Your task to perform on an android device: What's the weather? Image 0: 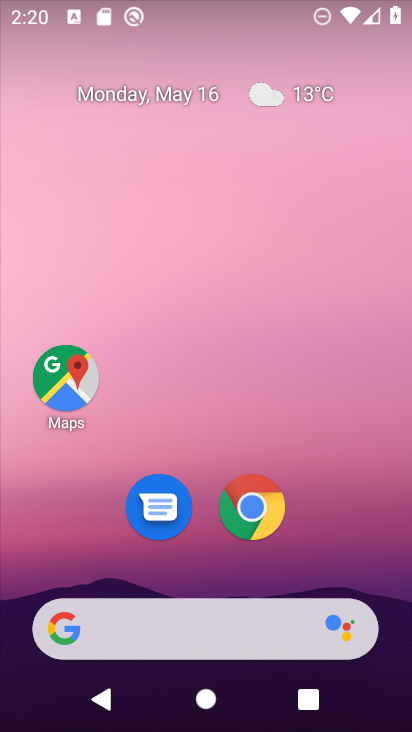
Step 0: drag from (208, 566) to (238, 249)
Your task to perform on an android device: What's the weather? Image 1: 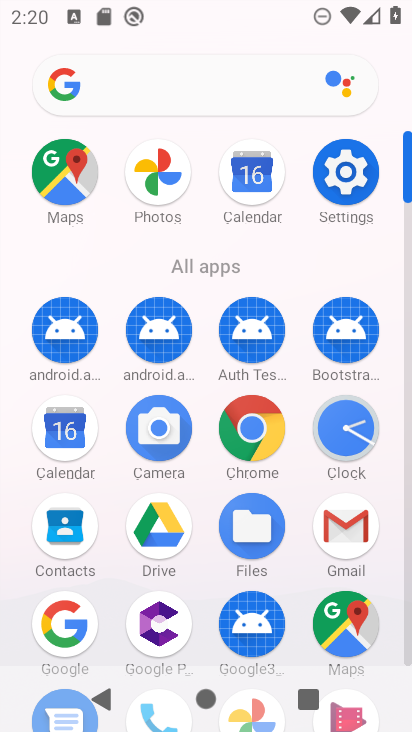
Step 1: click (49, 656)
Your task to perform on an android device: What's the weather? Image 2: 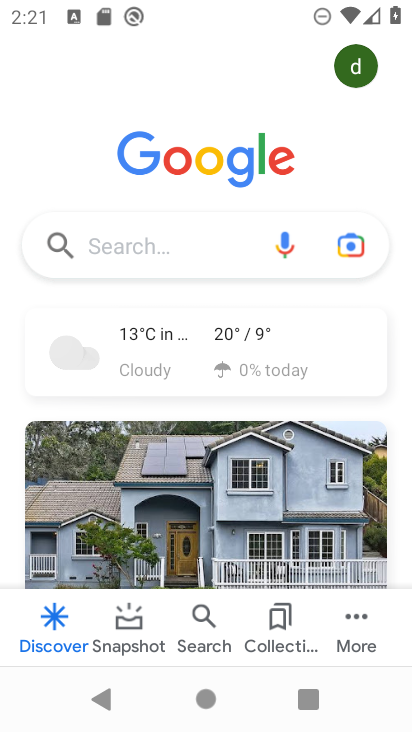
Step 2: click (200, 354)
Your task to perform on an android device: What's the weather? Image 3: 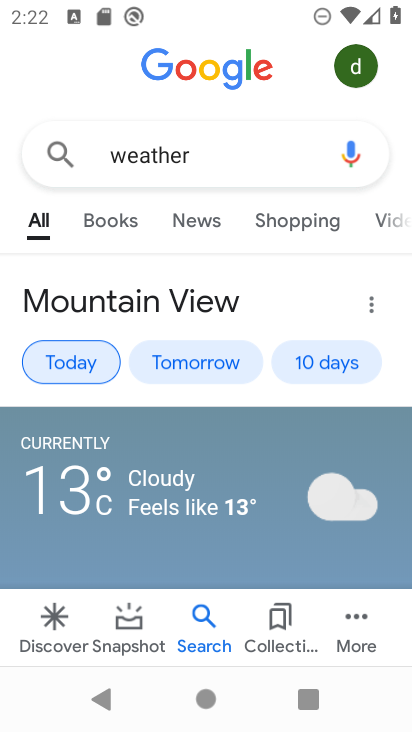
Step 3: task complete